Your task to perform on an android device: What's the weather going to be tomorrow? Image 0: 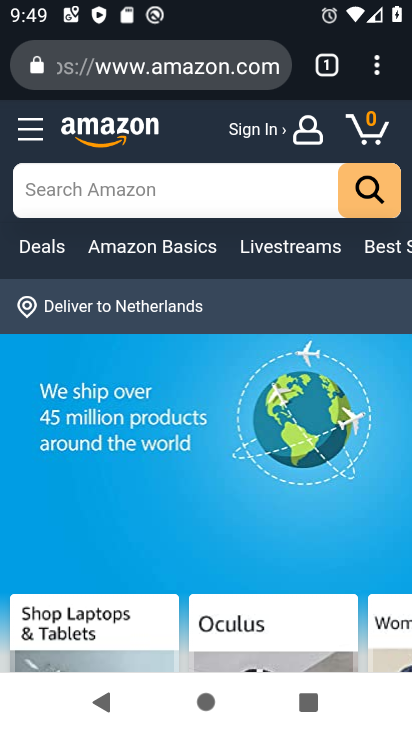
Step 0: press home button
Your task to perform on an android device: What's the weather going to be tomorrow? Image 1: 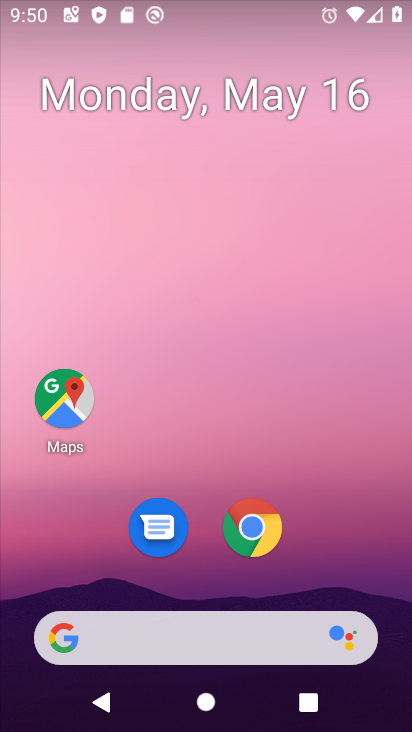
Step 1: click (149, 636)
Your task to perform on an android device: What's the weather going to be tomorrow? Image 2: 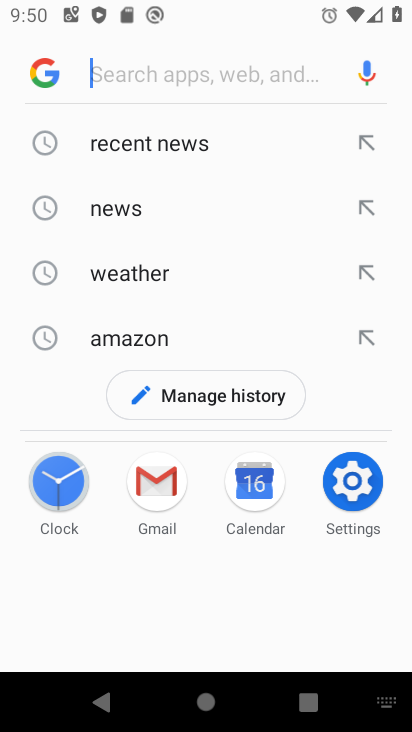
Step 2: click (119, 272)
Your task to perform on an android device: What's the weather going to be tomorrow? Image 3: 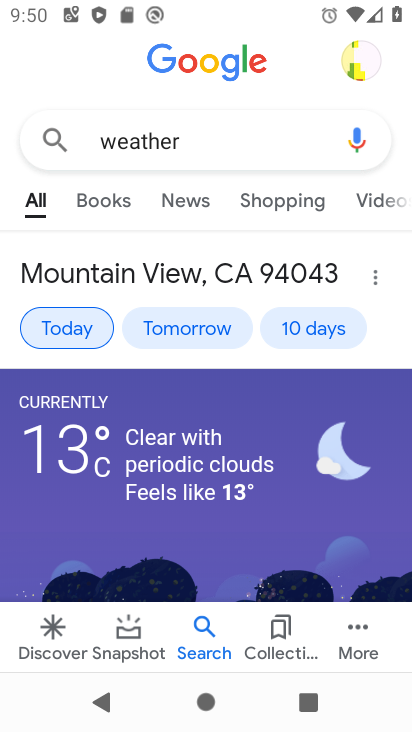
Step 3: click (168, 324)
Your task to perform on an android device: What's the weather going to be tomorrow? Image 4: 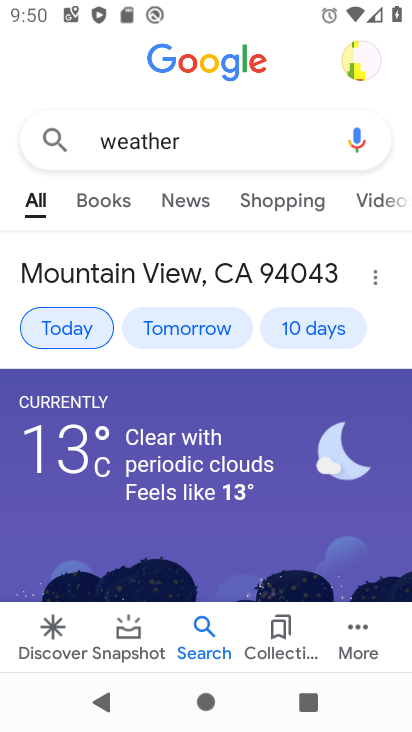
Step 4: click (191, 328)
Your task to perform on an android device: What's the weather going to be tomorrow? Image 5: 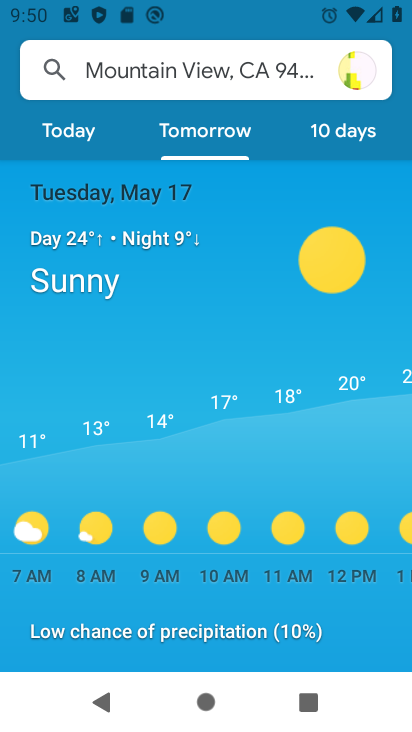
Step 5: task complete